Your task to perform on an android device: turn off priority inbox in the gmail app Image 0: 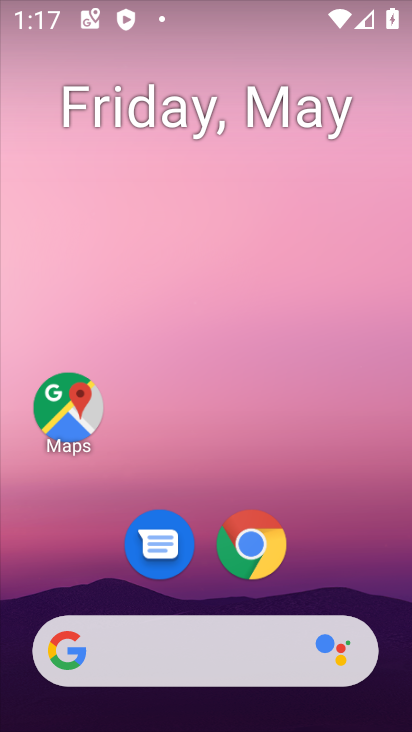
Step 0: drag from (94, 482) to (209, 180)
Your task to perform on an android device: turn off priority inbox in the gmail app Image 1: 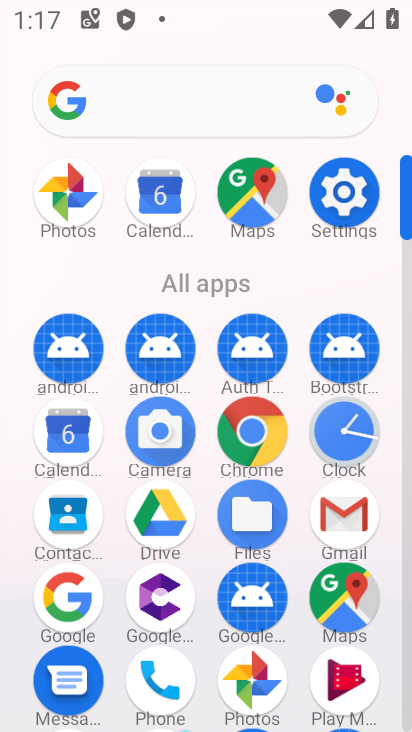
Step 1: click (354, 510)
Your task to perform on an android device: turn off priority inbox in the gmail app Image 2: 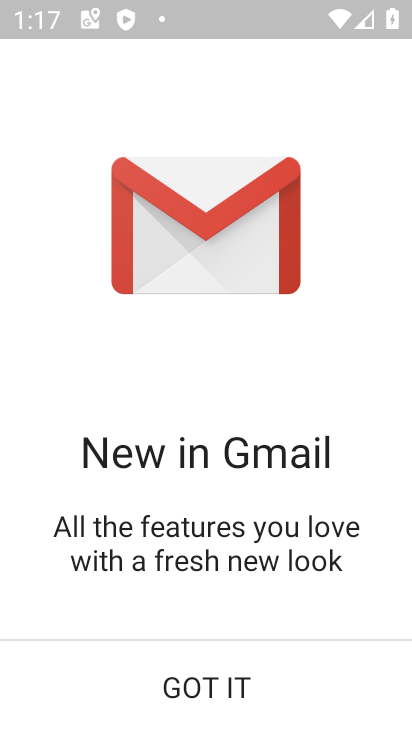
Step 2: click (158, 695)
Your task to perform on an android device: turn off priority inbox in the gmail app Image 3: 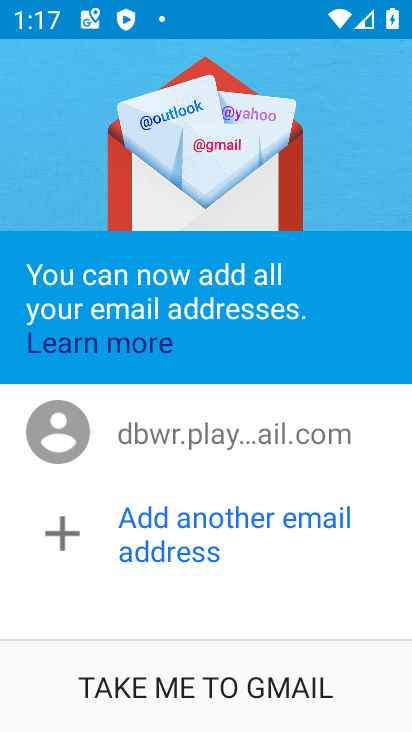
Step 3: click (196, 668)
Your task to perform on an android device: turn off priority inbox in the gmail app Image 4: 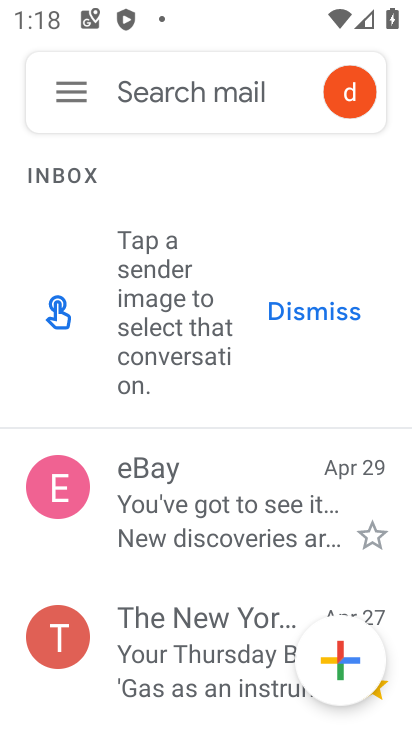
Step 4: click (60, 88)
Your task to perform on an android device: turn off priority inbox in the gmail app Image 5: 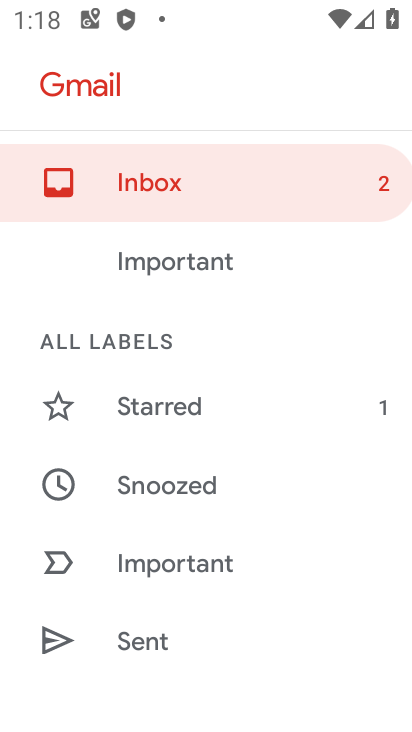
Step 5: drag from (187, 686) to (306, 244)
Your task to perform on an android device: turn off priority inbox in the gmail app Image 6: 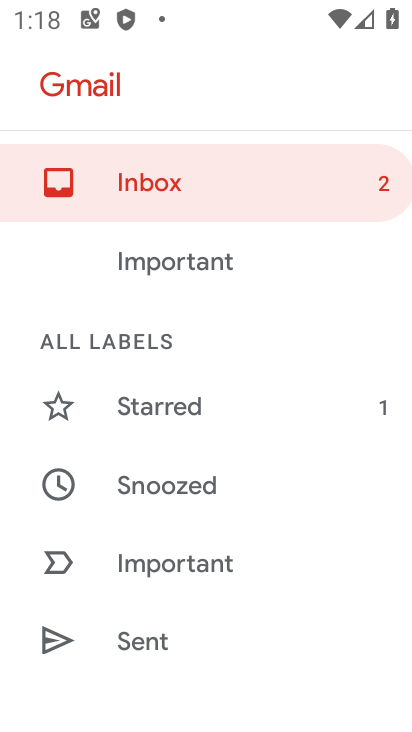
Step 6: drag from (201, 673) to (322, 305)
Your task to perform on an android device: turn off priority inbox in the gmail app Image 7: 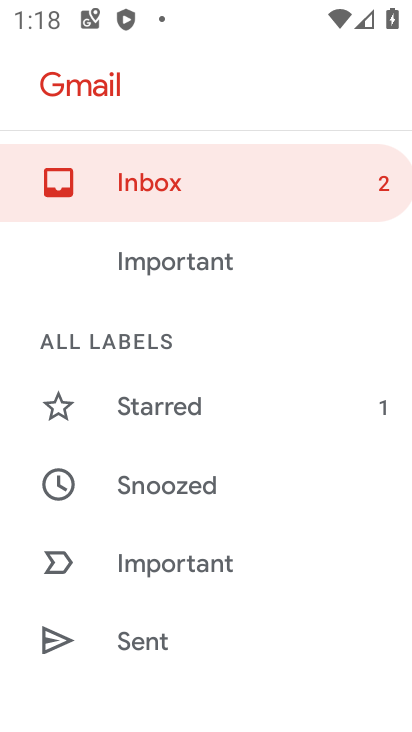
Step 7: drag from (118, 630) to (264, 243)
Your task to perform on an android device: turn off priority inbox in the gmail app Image 8: 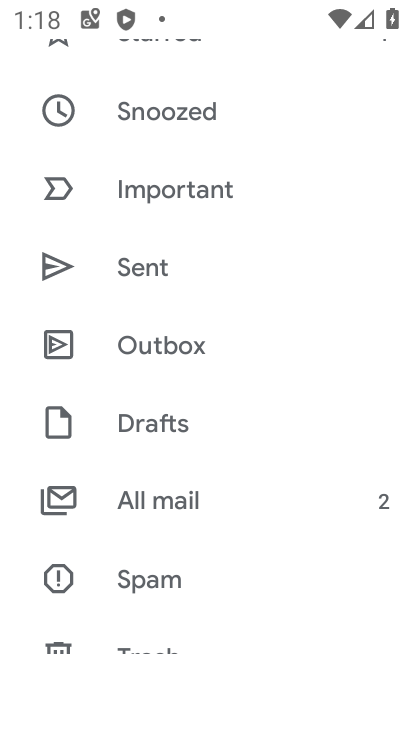
Step 8: drag from (129, 617) to (234, 203)
Your task to perform on an android device: turn off priority inbox in the gmail app Image 9: 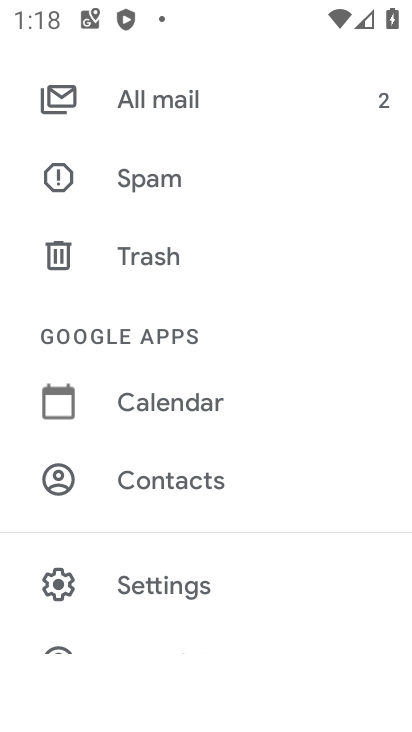
Step 9: click (217, 577)
Your task to perform on an android device: turn off priority inbox in the gmail app Image 10: 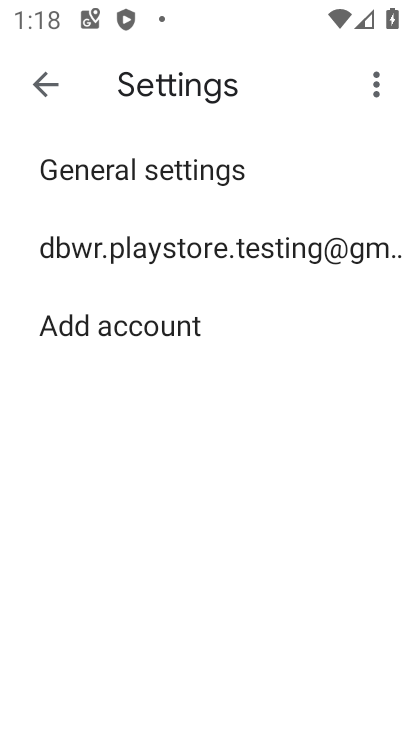
Step 10: click (157, 256)
Your task to perform on an android device: turn off priority inbox in the gmail app Image 11: 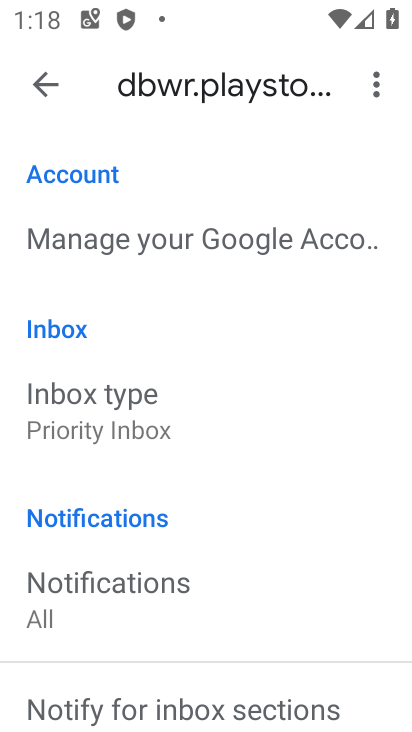
Step 11: click (147, 416)
Your task to perform on an android device: turn off priority inbox in the gmail app Image 12: 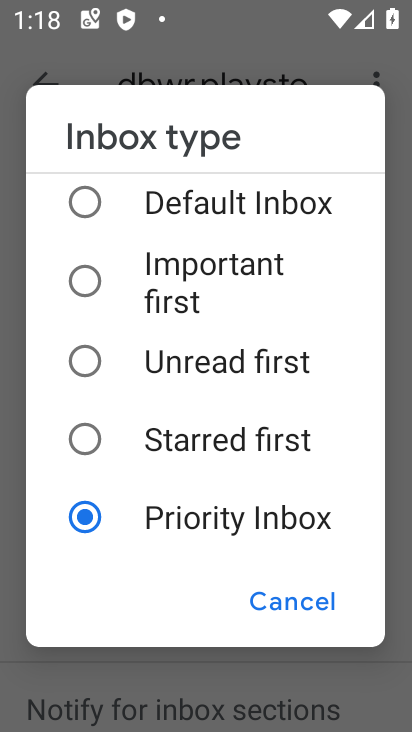
Step 12: click (77, 194)
Your task to perform on an android device: turn off priority inbox in the gmail app Image 13: 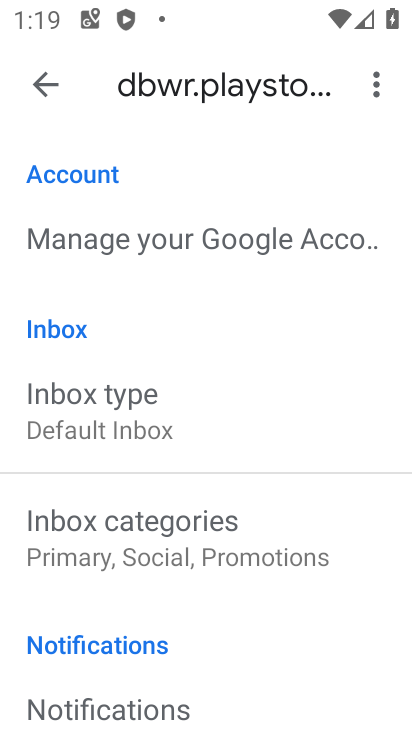
Step 13: task complete